Your task to perform on an android device: When is my next meeting? Image 0: 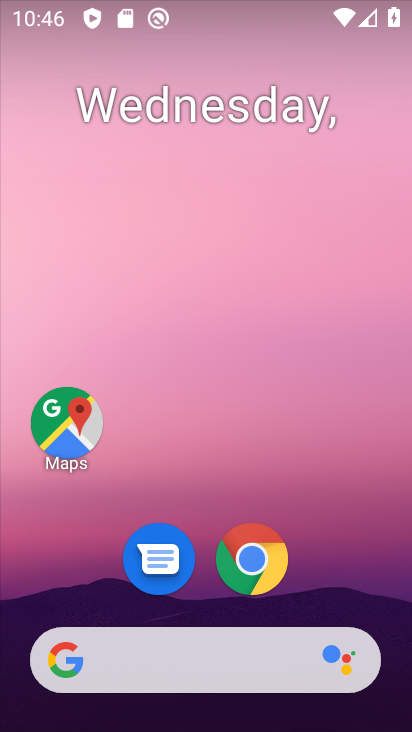
Step 0: drag from (359, 497) to (5, 3)
Your task to perform on an android device: When is my next meeting? Image 1: 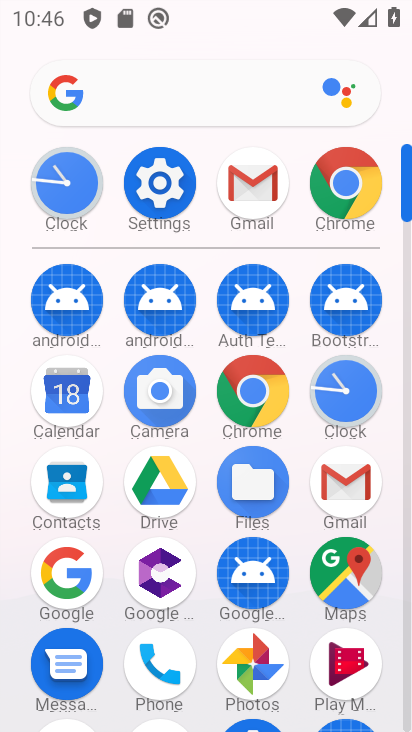
Step 1: drag from (355, 482) to (330, 139)
Your task to perform on an android device: When is my next meeting? Image 2: 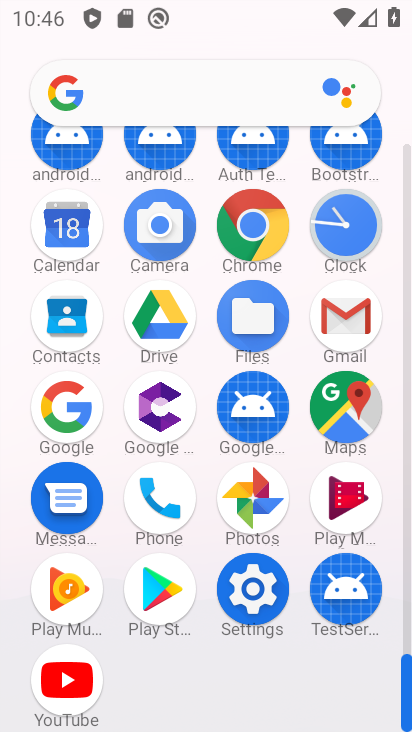
Step 2: click (66, 233)
Your task to perform on an android device: When is my next meeting? Image 3: 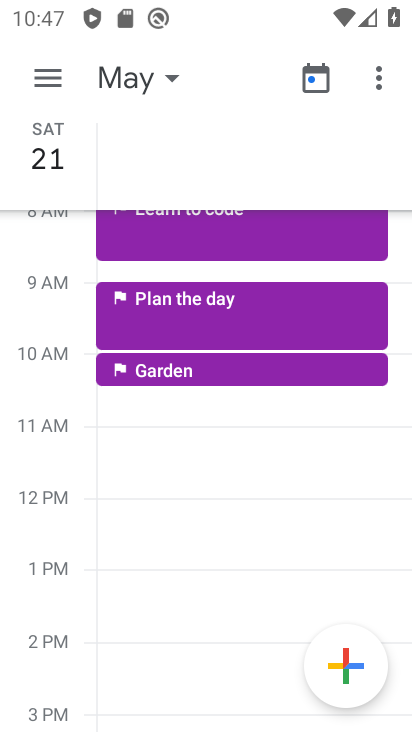
Step 3: click (113, 79)
Your task to perform on an android device: When is my next meeting? Image 4: 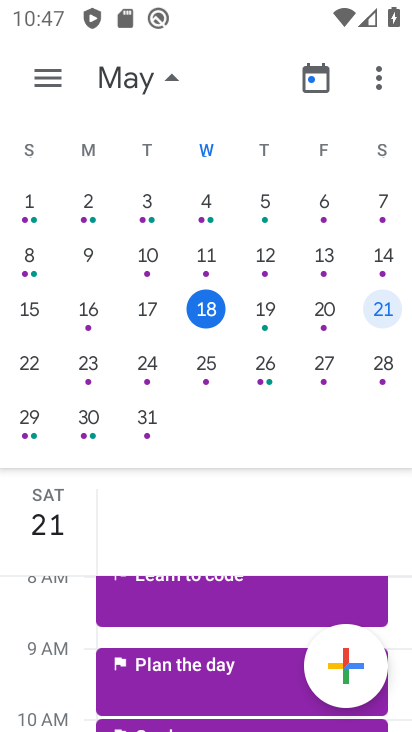
Step 4: click (264, 309)
Your task to perform on an android device: When is my next meeting? Image 5: 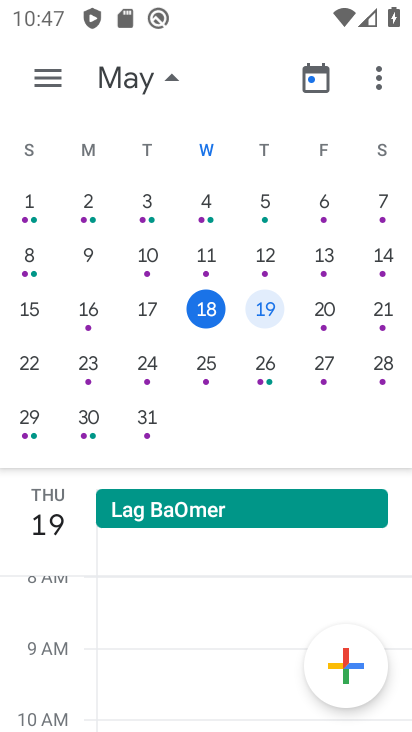
Step 5: task complete